Your task to perform on an android device: What is the recent news? Image 0: 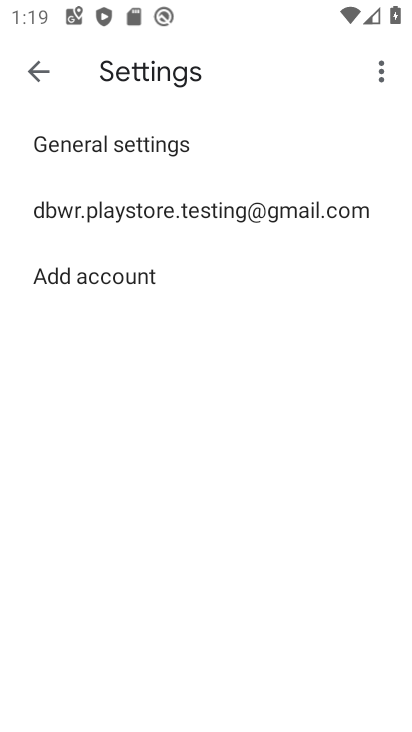
Step 0: press home button
Your task to perform on an android device: What is the recent news? Image 1: 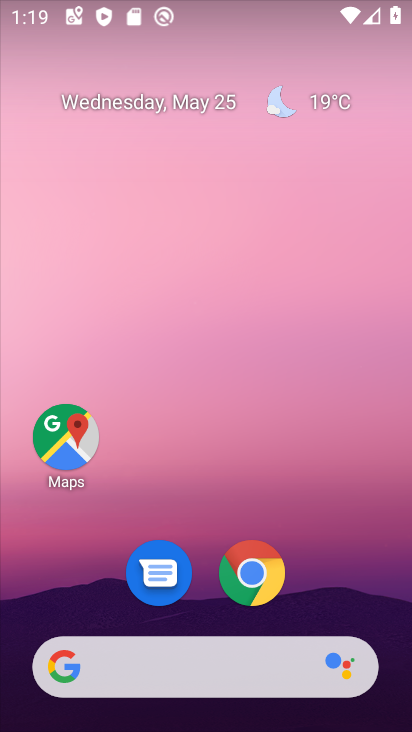
Step 1: task complete